Your task to perform on an android device: Is it going to rain tomorrow? Image 0: 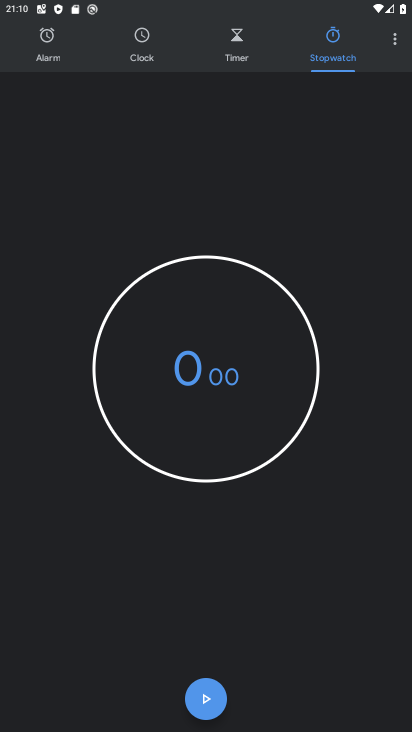
Step 0: press back button
Your task to perform on an android device: Is it going to rain tomorrow? Image 1: 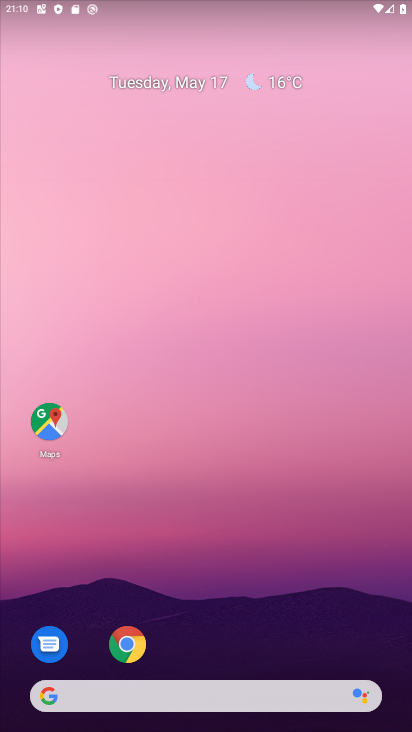
Step 1: click (262, 84)
Your task to perform on an android device: Is it going to rain tomorrow? Image 2: 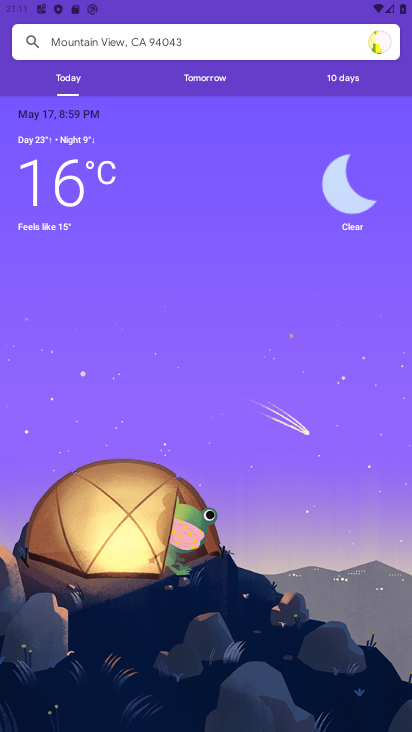
Step 2: click (235, 78)
Your task to perform on an android device: Is it going to rain tomorrow? Image 3: 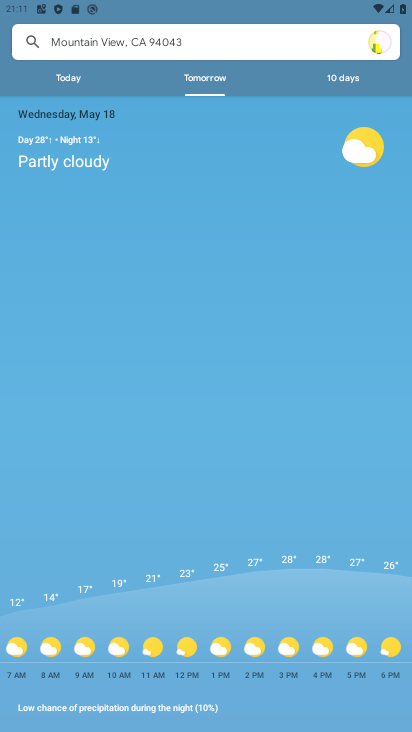
Step 3: task complete